Your task to perform on an android device: Open Google Chrome Image 0: 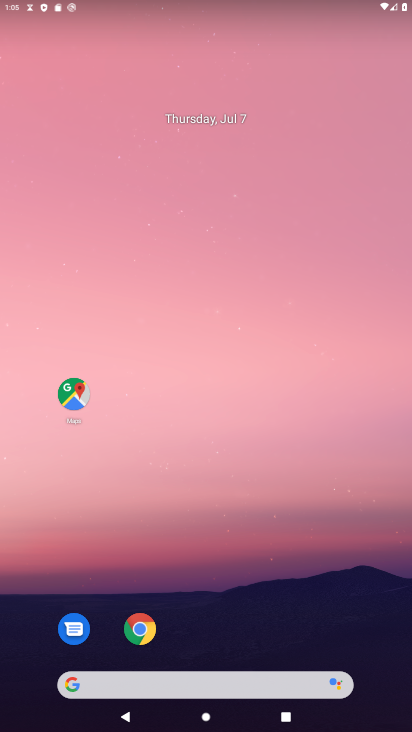
Step 0: click (143, 633)
Your task to perform on an android device: Open Google Chrome Image 1: 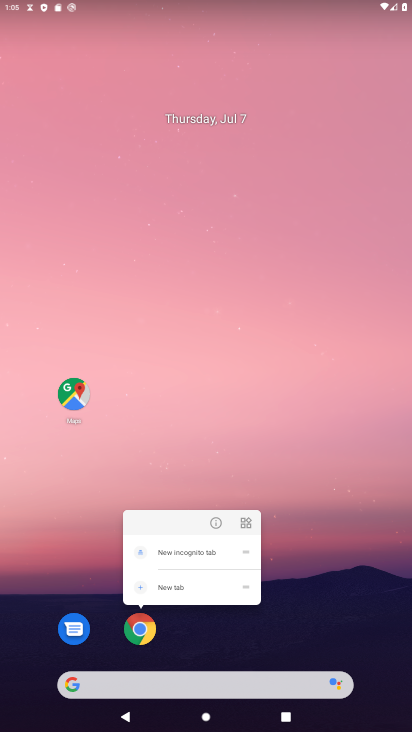
Step 1: click (142, 632)
Your task to perform on an android device: Open Google Chrome Image 2: 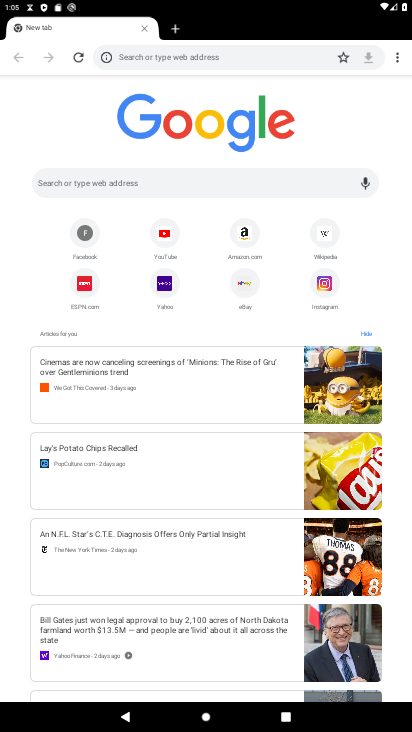
Step 2: task complete